Your task to perform on an android device: Go to wifi settings Image 0: 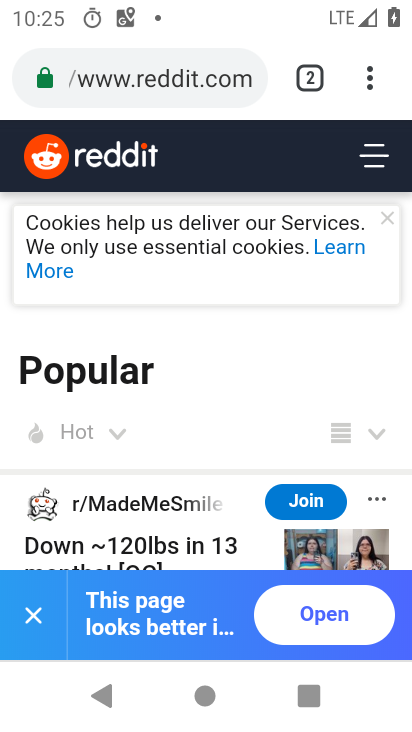
Step 0: press home button
Your task to perform on an android device: Go to wifi settings Image 1: 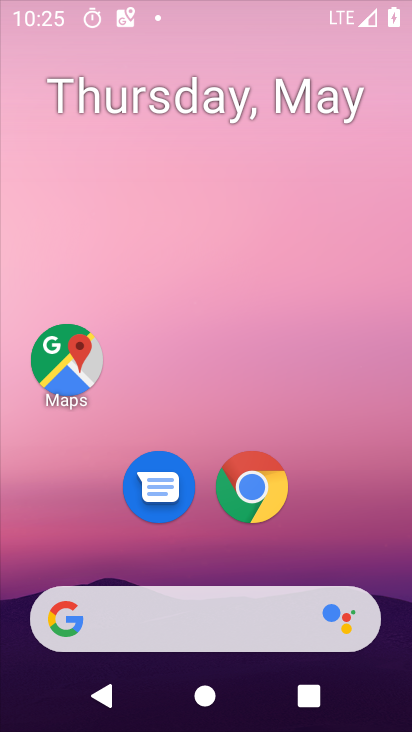
Step 1: drag from (231, 592) to (307, 94)
Your task to perform on an android device: Go to wifi settings Image 2: 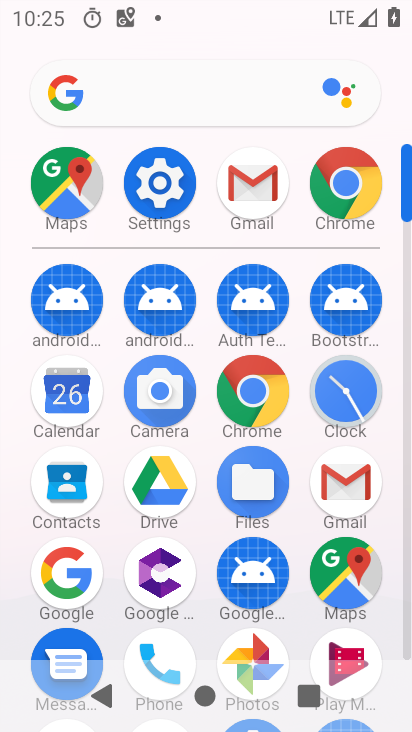
Step 2: drag from (132, 501) to (145, 192)
Your task to perform on an android device: Go to wifi settings Image 3: 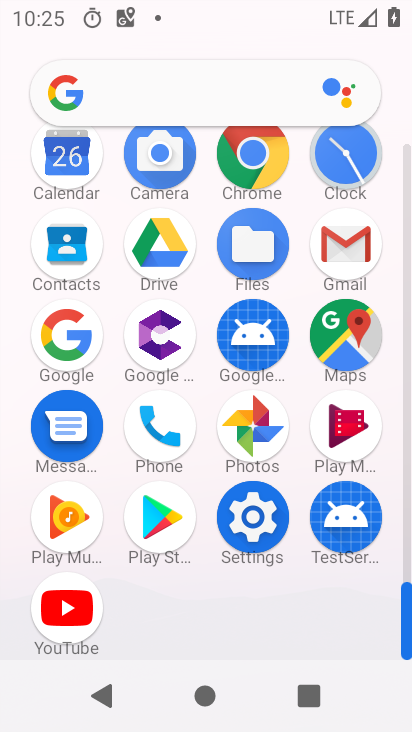
Step 3: click (258, 534)
Your task to perform on an android device: Go to wifi settings Image 4: 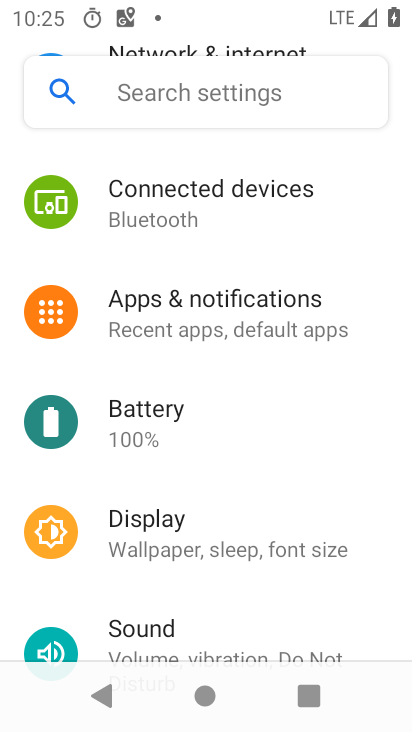
Step 4: drag from (208, 481) to (233, 297)
Your task to perform on an android device: Go to wifi settings Image 5: 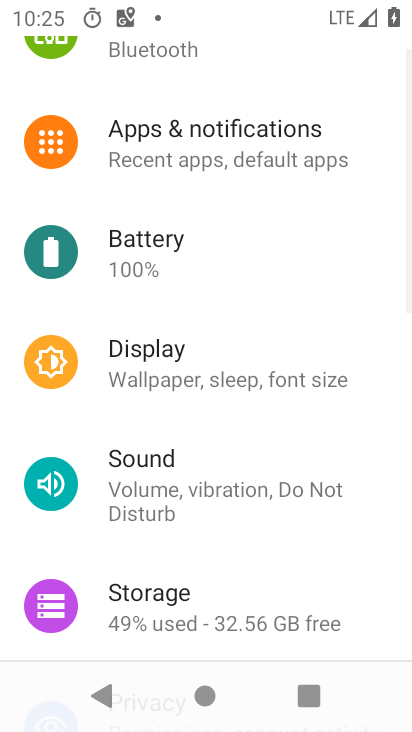
Step 5: drag from (231, 342) to (153, 714)
Your task to perform on an android device: Go to wifi settings Image 6: 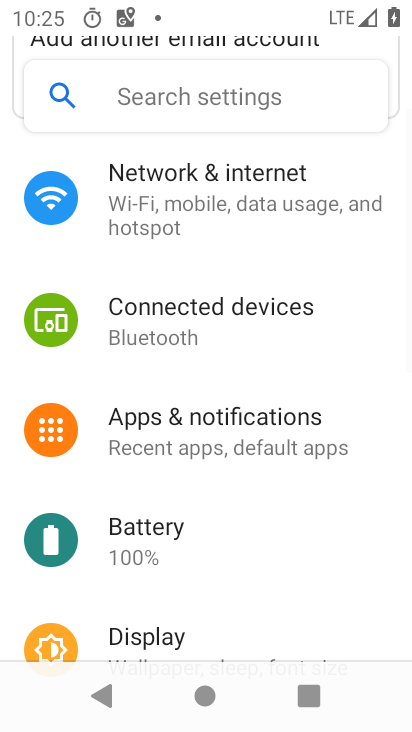
Step 6: drag from (176, 405) to (157, 726)
Your task to perform on an android device: Go to wifi settings Image 7: 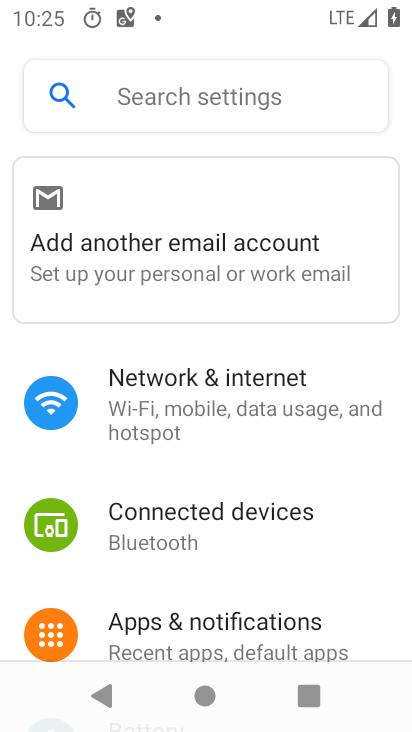
Step 7: click (189, 418)
Your task to perform on an android device: Go to wifi settings Image 8: 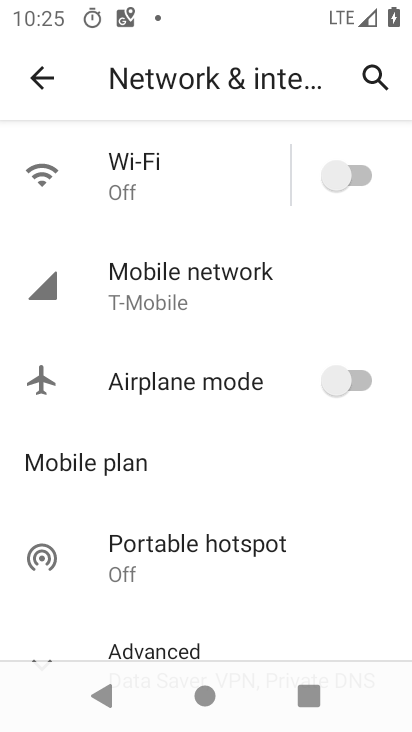
Step 8: click (204, 176)
Your task to perform on an android device: Go to wifi settings Image 9: 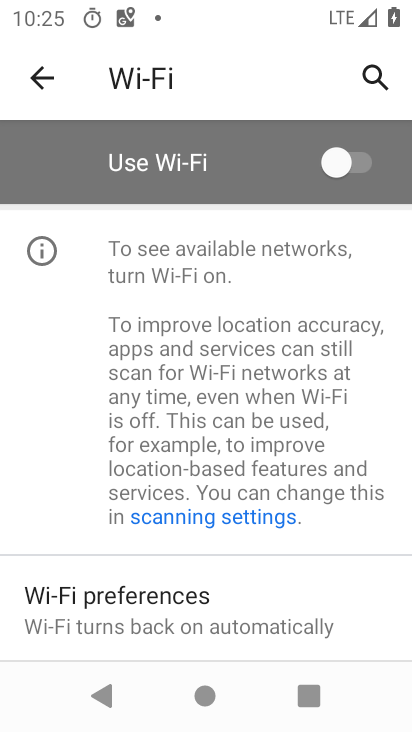
Step 9: task complete